Your task to perform on an android device: remove spam from my inbox in the gmail app Image 0: 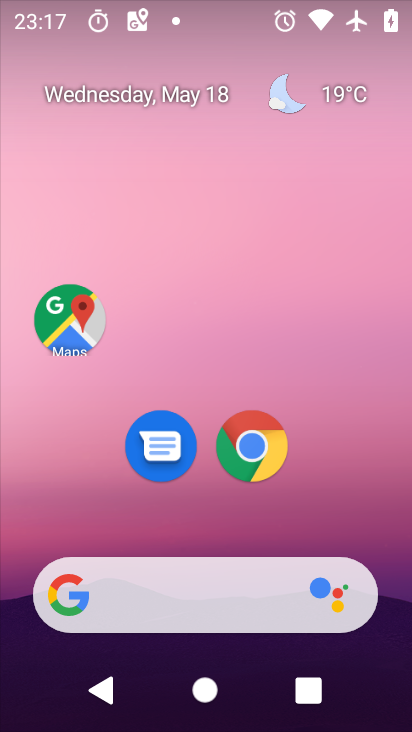
Step 0: drag from (232, 576) to (337, 225)
Your task to perform on an android device: remove spam from my inbox in the gmail app Image 1: 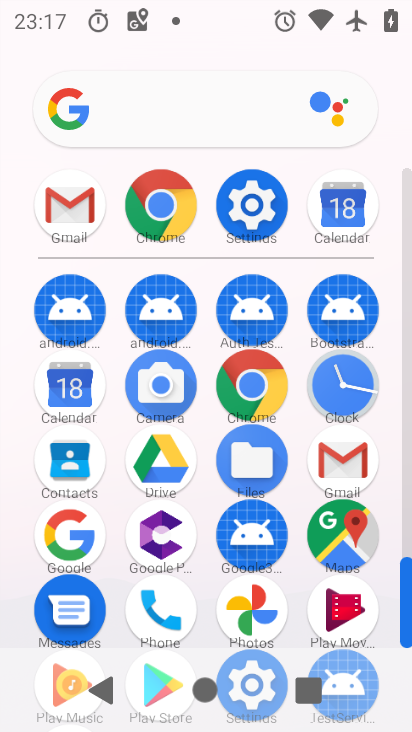
Step 1: click (77, 211)
Your task to perform on an android device: remove spam from my inbox in the gmail app Image 2: 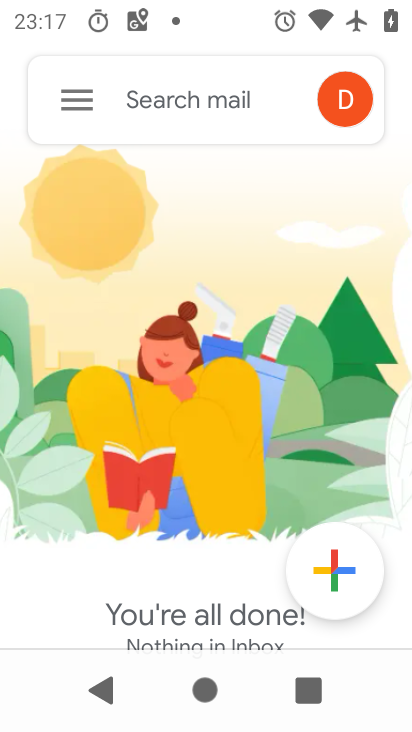
Step 2: click (82, 98)
Your task to perform on an android device: remove spam from my inbox in the gmail app Image 3: 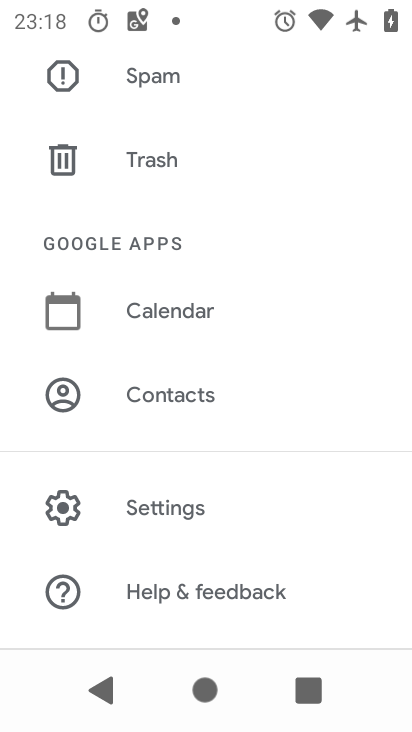
Step 3: click (157, 74)
Your task to perform on an android device: remove spam from my inbox in the gmail app Image 4: 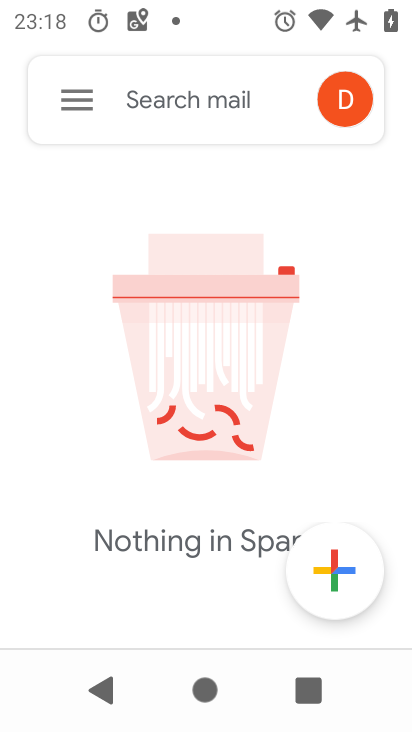
Step 4: task complete